Your task to perform on an android device: check google app version Image 0: 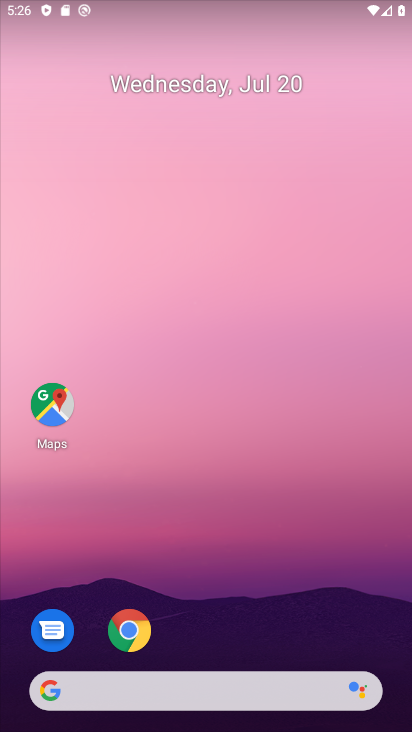
Step 0: drag from (292, 690) to (353, 37)
Your task to perform on an android device: check google app version Image 1: 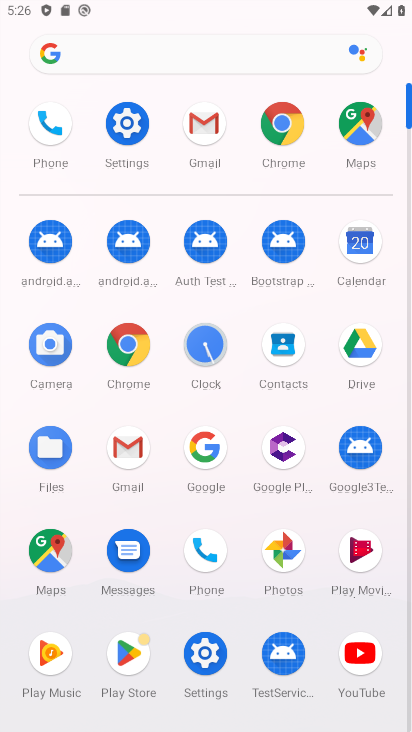
Step 1: click (135, 351)
Your task to perform on an android device: check google app version Image 2: 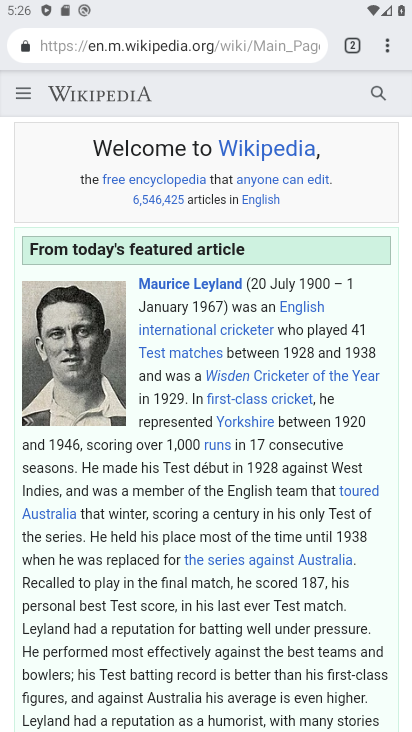
Step 2: drag from (389, 43) to (251, 589)
Your task to perform on an android device: check google app version Image 3: 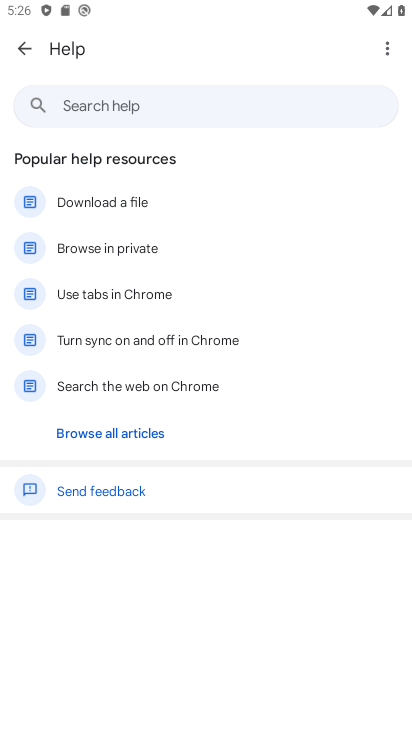
Step 3: click (389, 45)
Your task to perform on an android device: check google app version Image 4: 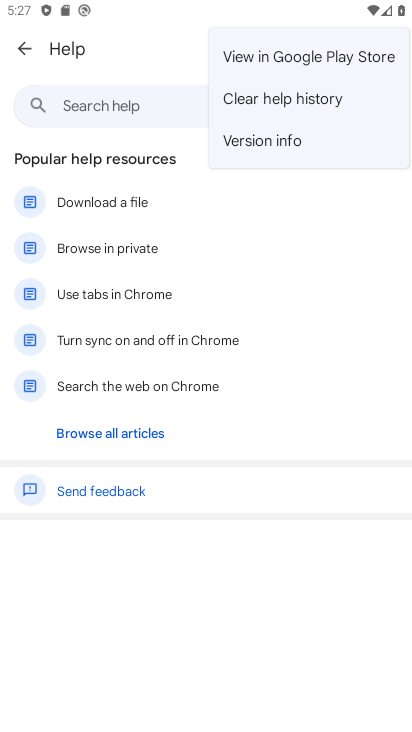
Step 4: click (314, 144)
Your task to perform on an android device: check google app version Image 5: 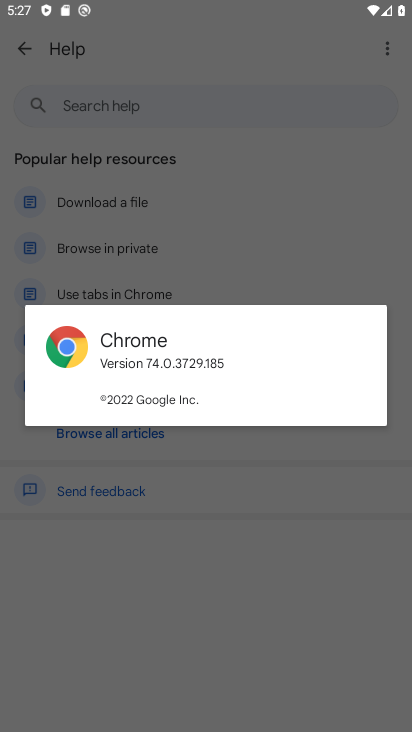
Step 5: task complete